Your task to perform on an android device: turn off sleep mode Image 0: 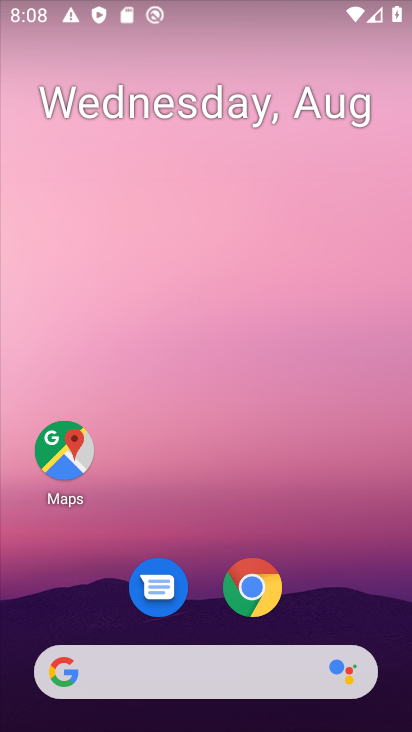
Step 0: drag from (382, 653) to (237, 243)
Your task to perform on an android device: turn off sleep mode Image 1: 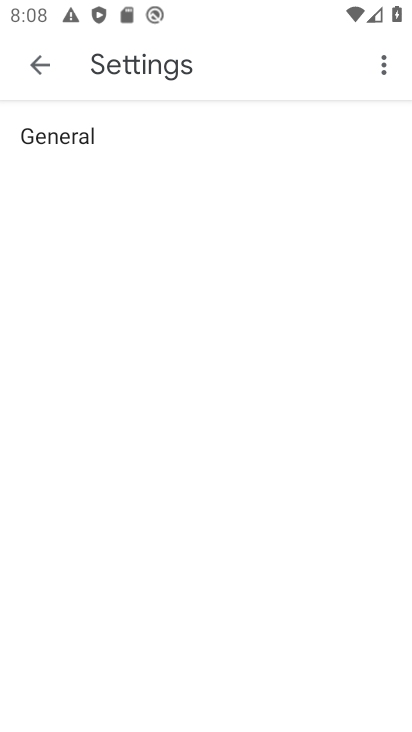
Step 1: click (30, 61)
Your task to perform on an android device: turn off sleep mode Image 2: 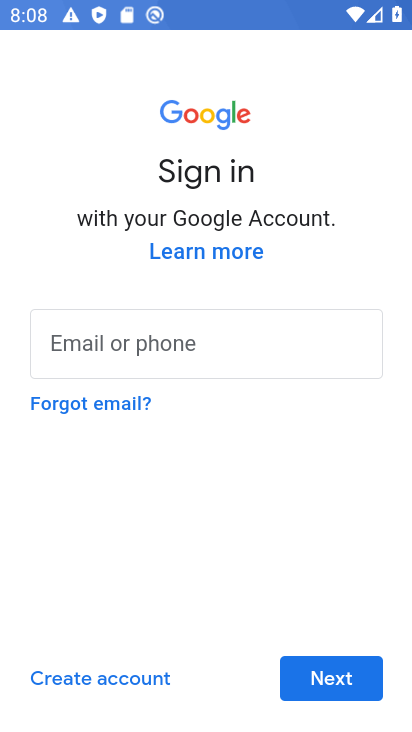
Step 2: press back button
Your task to perform on an android device: turn off sleep mode Image 3: 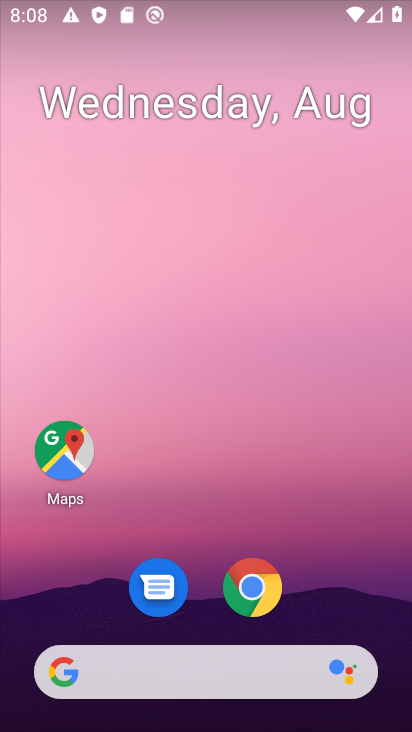
Step 3: drag from (226, 601) to (130, 221)
Your task to perform on an android device: turn off sleep mode Image 4: 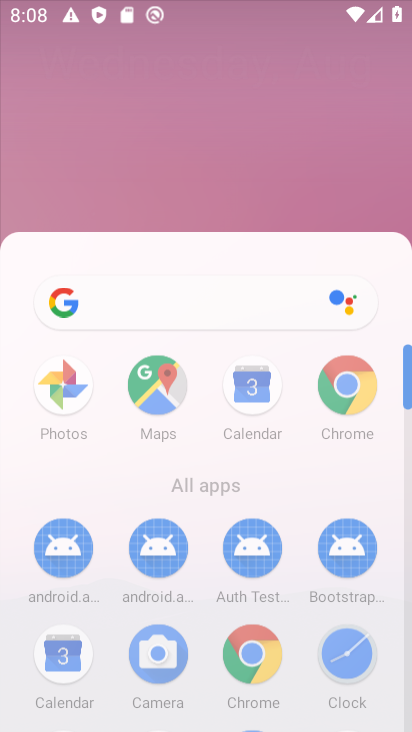
Step 4: drag from (143, 688) to (103, 185)
Your task to perform on an android device: turn off sleep mode Image 5: 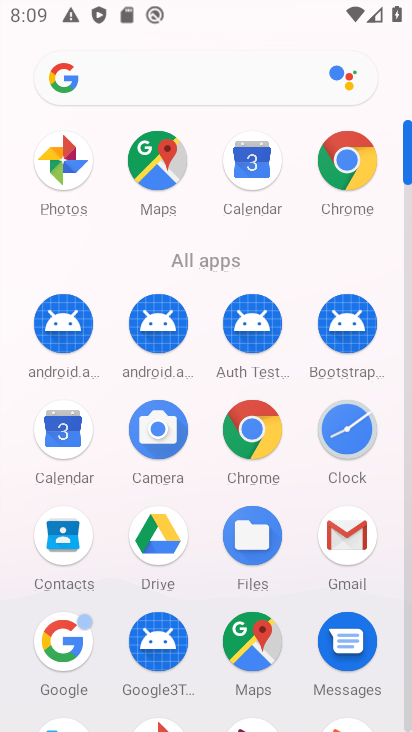
Step 5: drag from (290, 620) to (256, 274)
Your task to perform on an android device: turn off sleep mode Image 6: 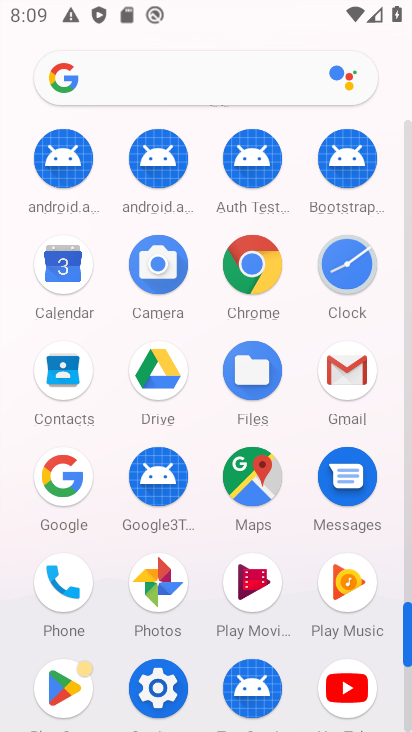
Step 6: drag from (210, 618) to (215, 278)
Your task to perform on an android device: turn off sleep mode Image 7: 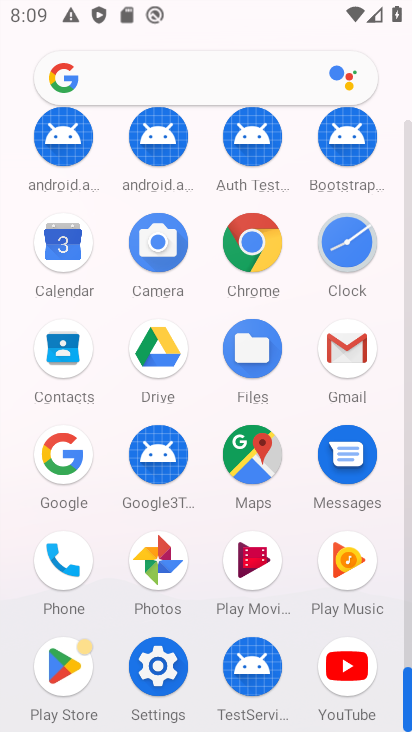
Step 7: click (162, 661)
Your task to perform on an android device: turn off sleep mode Image 8: 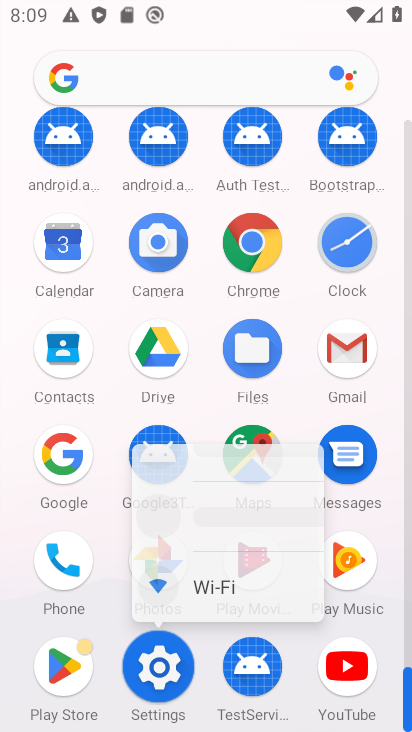
Step 8: click (155, 667)
Your task to perform on an android device: turn off sleep mode Image 9: 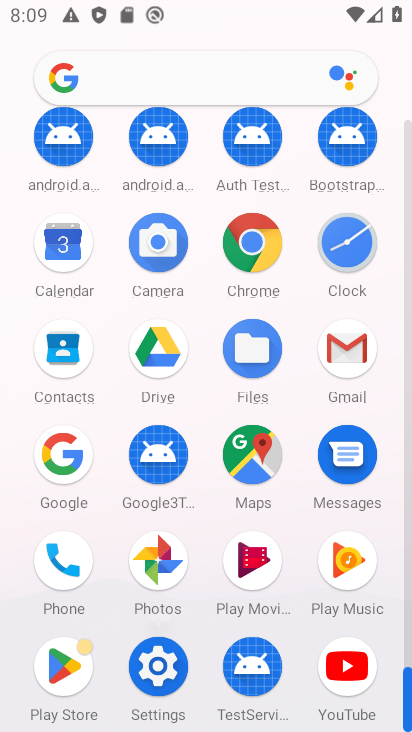
Step 9: click (156, 669)
Your task to perform on an android device: turn off sleep mode Image 10: 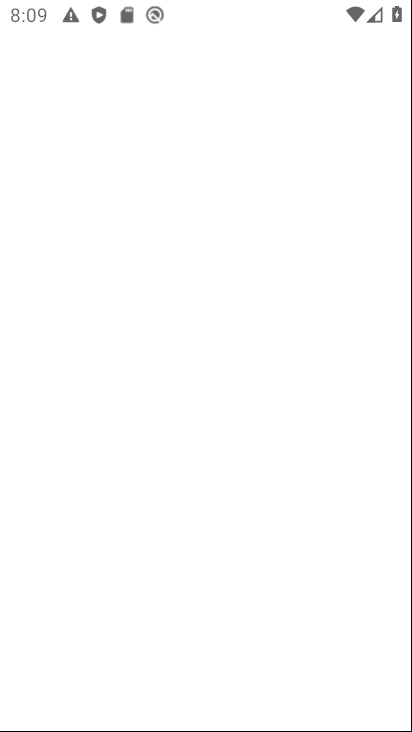
Step 10: click (157, 668)
Your task to perform on an android device: turn off sleep mode Image 11: 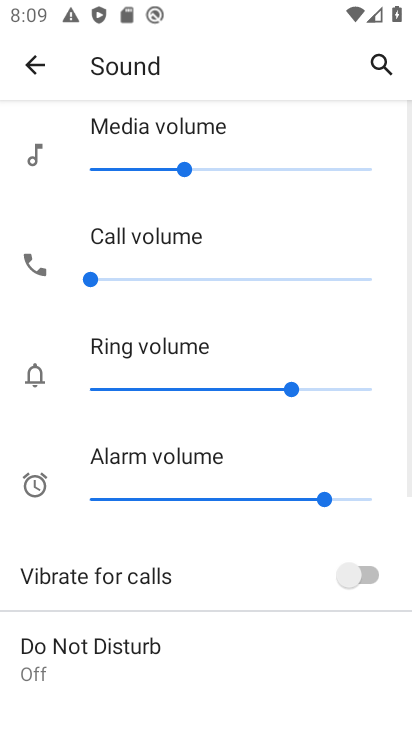
Step 11: click (37, 53)
Your task to perform on an android device: turn off sleep mode Image 12: 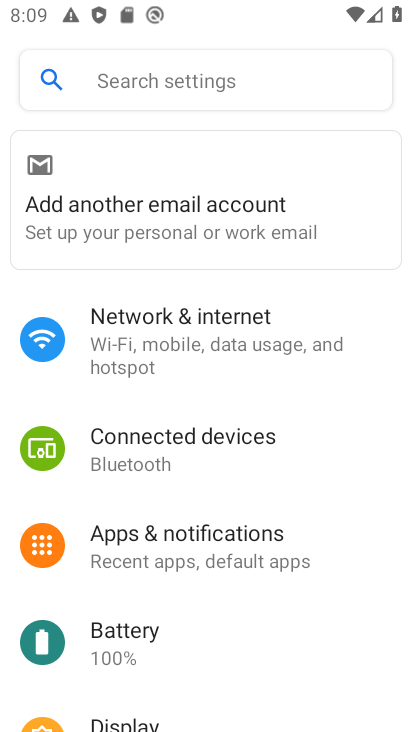
Step 12: drag from (243, 660) to (208, 360)
Your task to perform on an android device: turn off sleep mode Image 13: 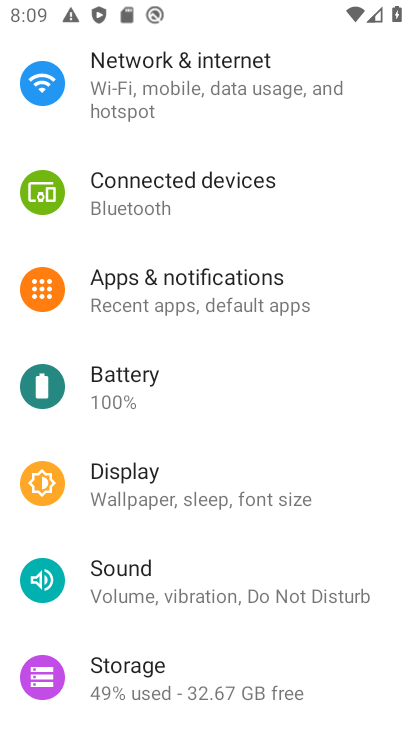
Step 13: click (172, 498)
Your task to perform on an android device: turn off sleep mode Image 14: 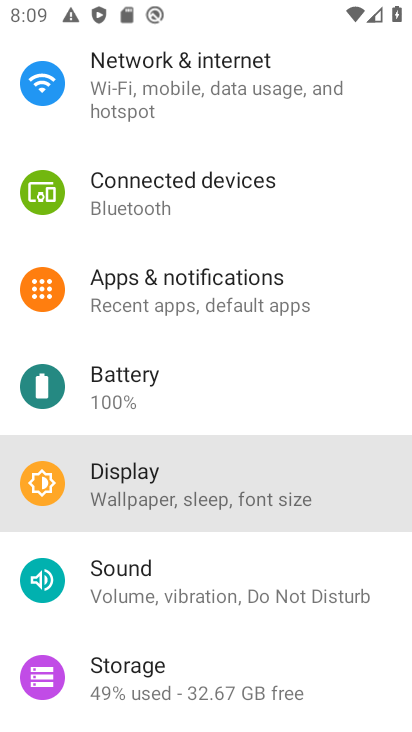
Step 14: click (171, 499)
Your task to perform on an android device: turn off sleep mode Image 15: 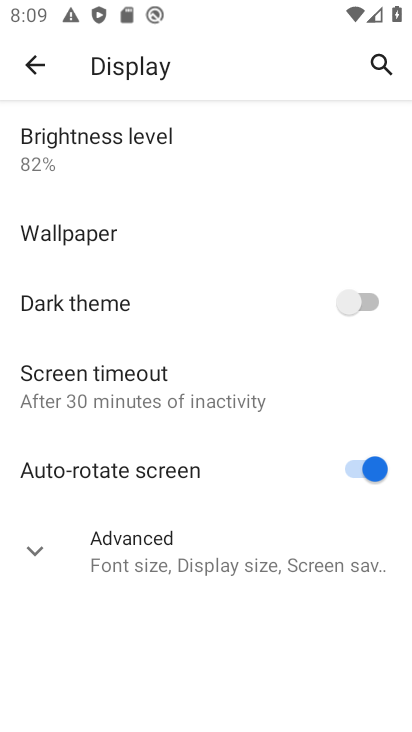
Step 15: click (107, 383)
Your task to perform on an android device: turn off sleep mode Image 16: 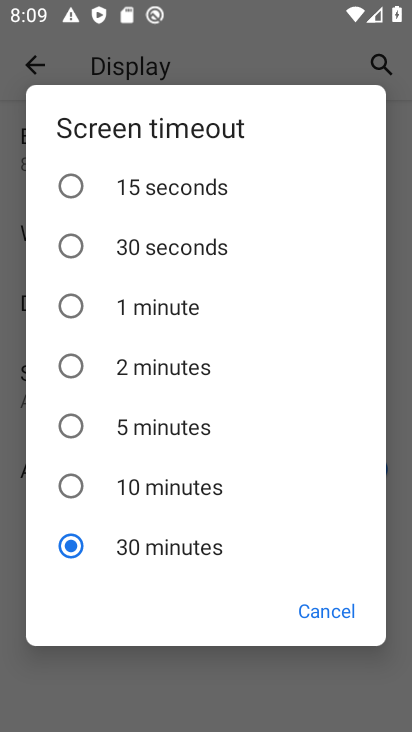
Step 16: task complete